Your task to perform on an android device: Go to Wikipedia Image 0: 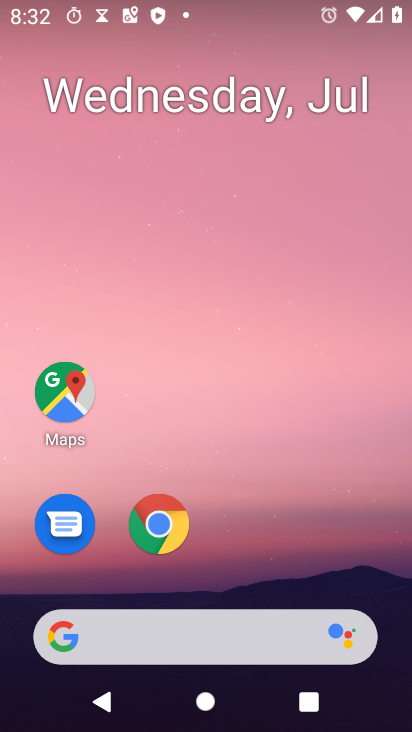
Step 0: press home button
Your task to perform on an android device: Go to Wikipedia Image 1: 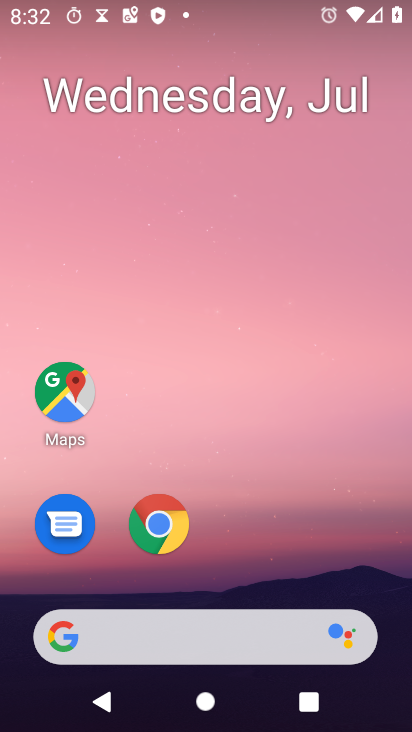
Step 1: click (152, 521)
Your task to perform on an android device: Go to Wikipedia Image 2: 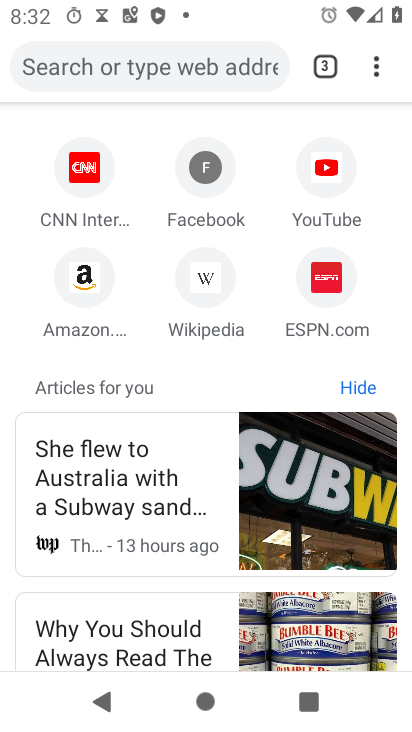
Step 2: click (213, 287)
Your task to perform on an android device: Go to Wikipedia Image 3: 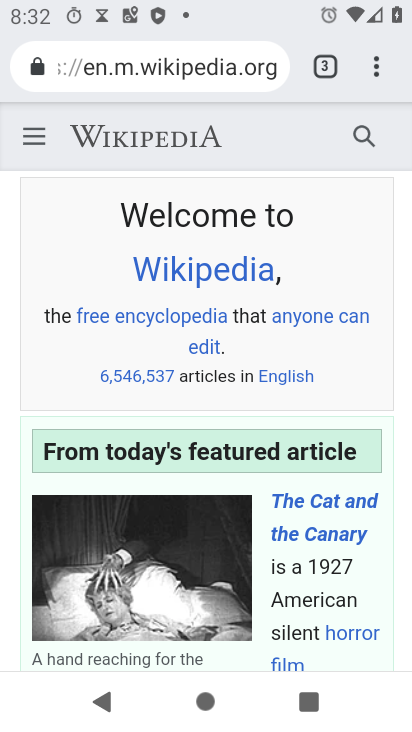
Step 3: task complete